Your task to perform on an android device: Show the shopping cart on target.com. Image 0: 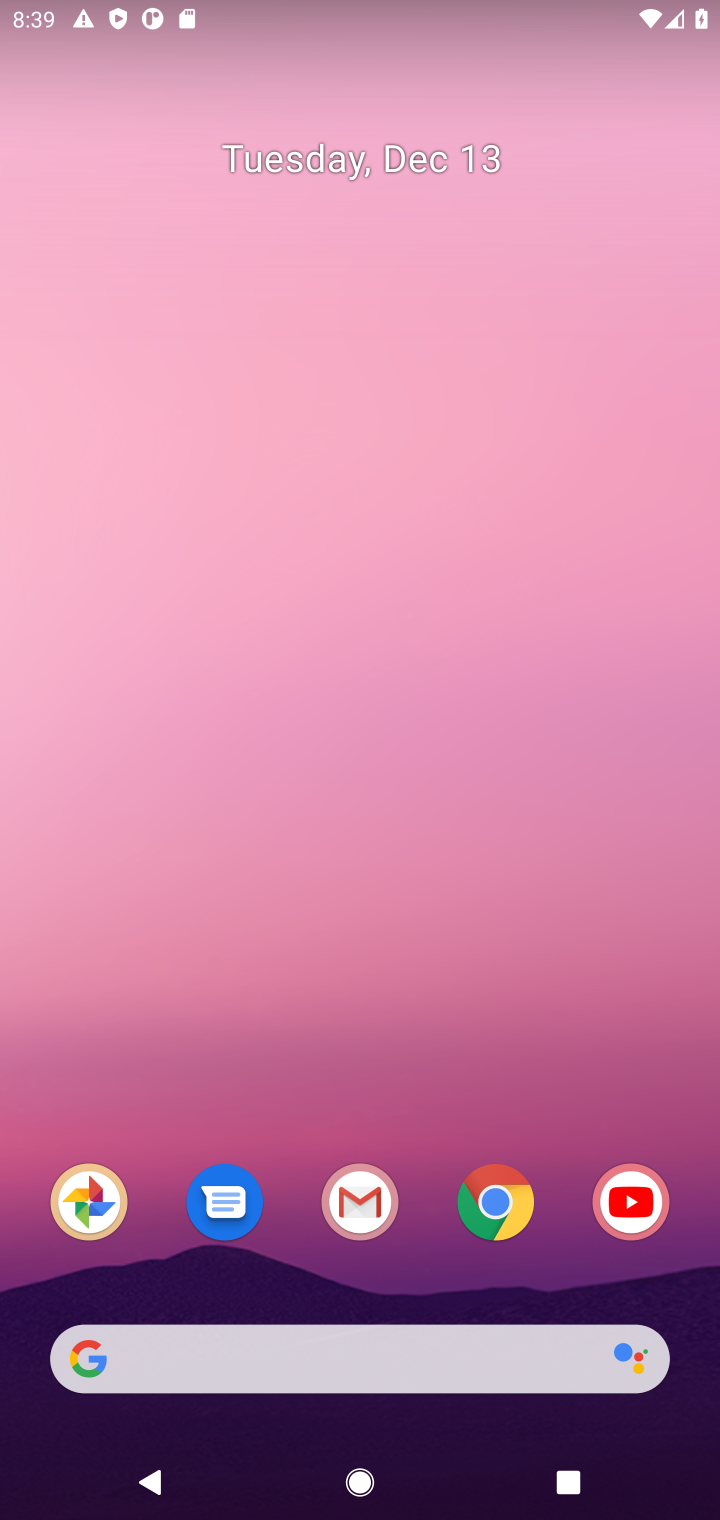
Step 0: click (500, 1198)
Your task to perform on an android device: Show the shopping cart on target.com. Image 1: 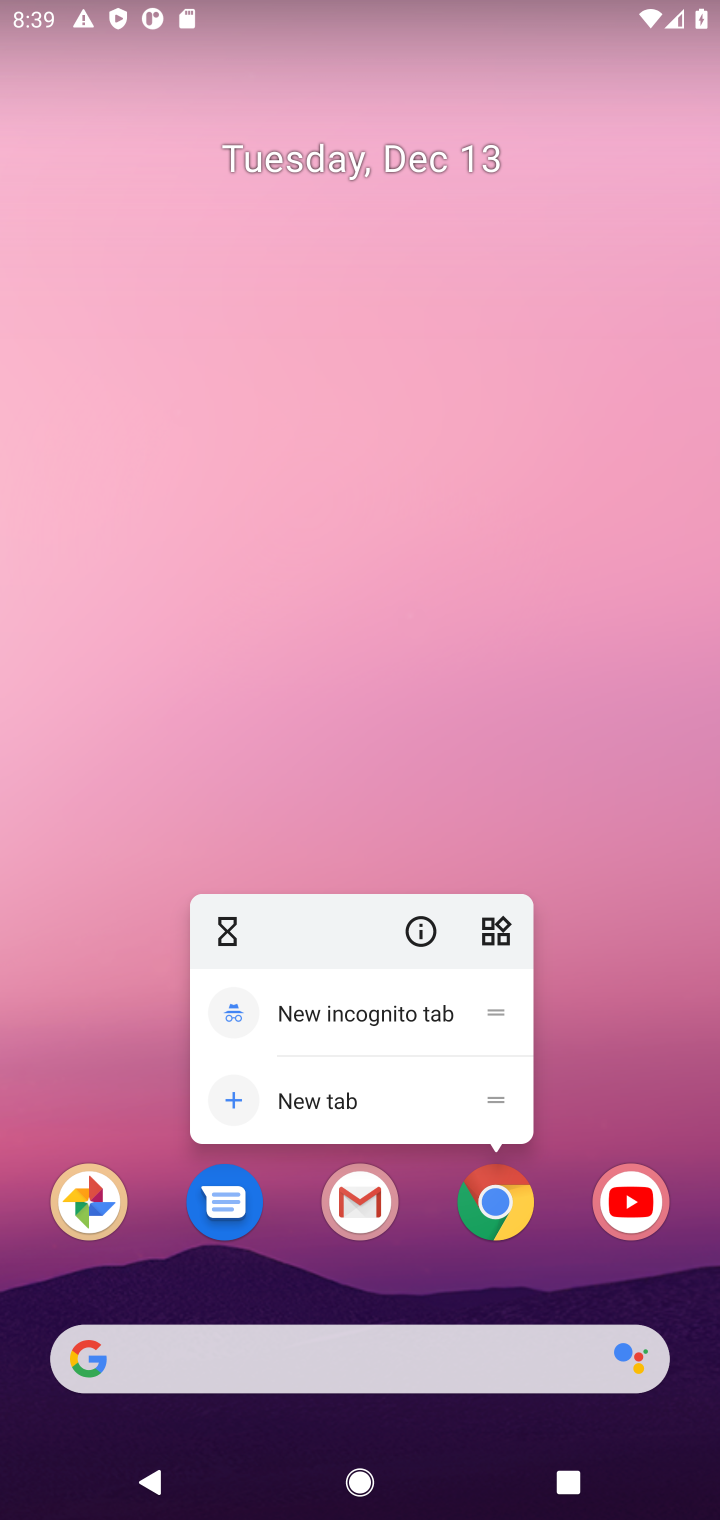
Step 1: click (500, 1198)
Your task to perform on an android device: Show the shopping cart on target.com. Image 2: 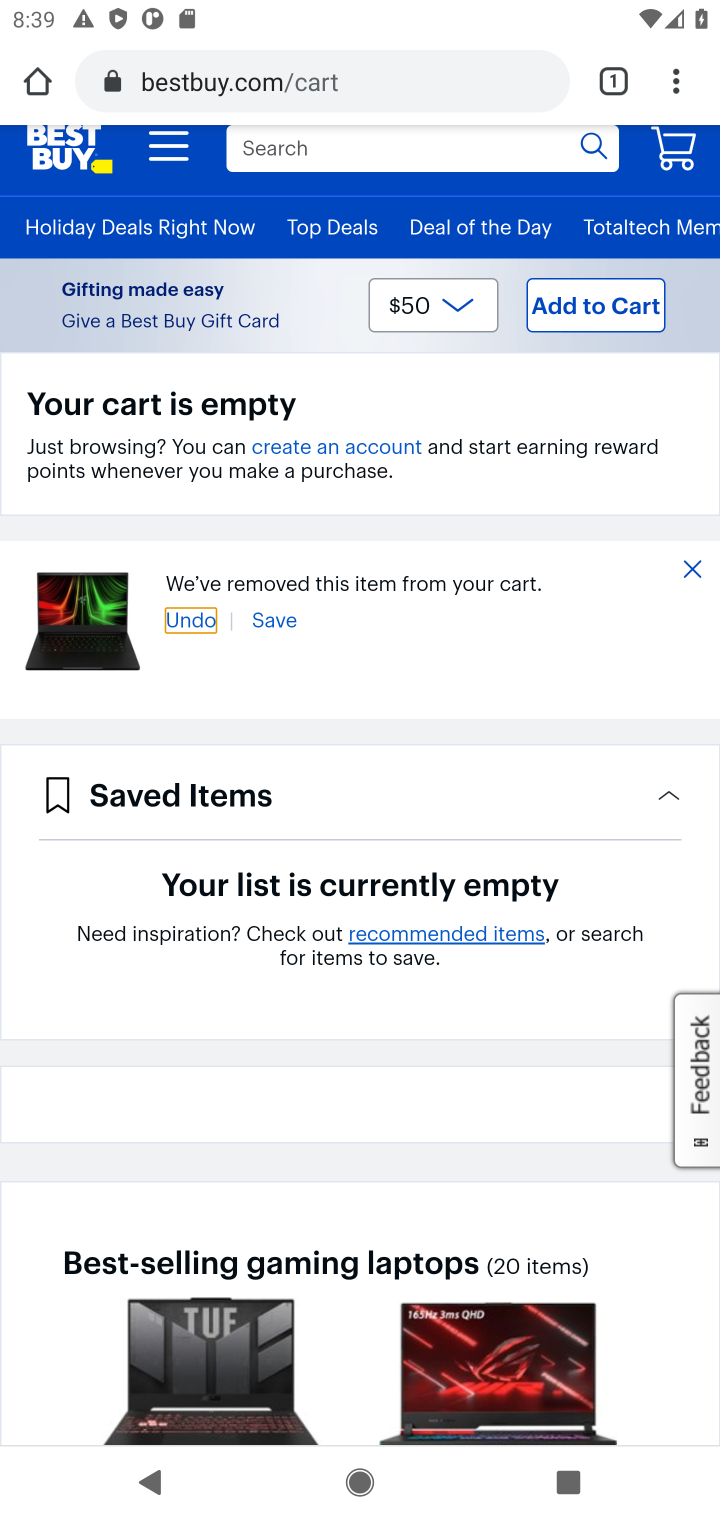
Step 2: click (258, 88)
Your task to perform on an android device: Show the shopping cart on target.com. Image 3: 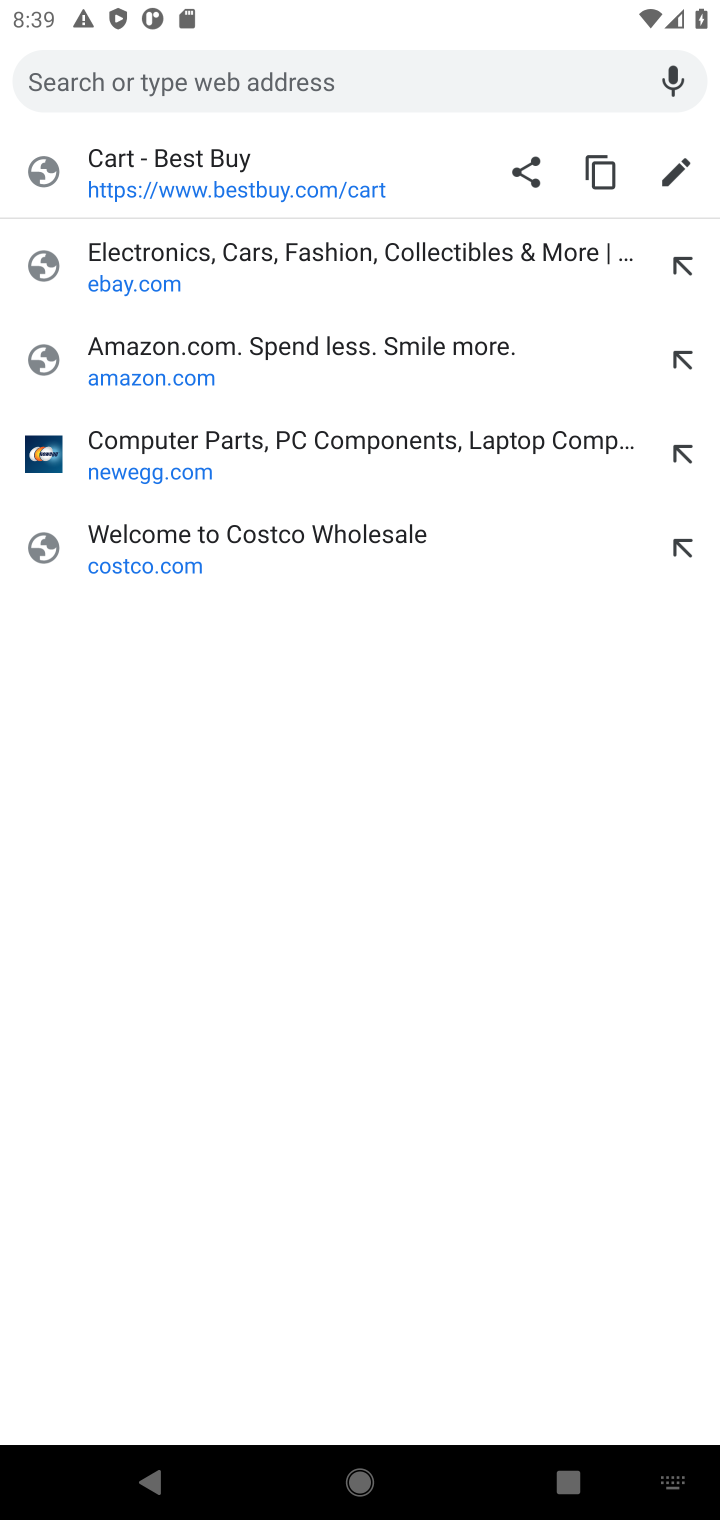
Step 3: type "target.com"
Your task to perform on an android device: Show the shopping cart on target.com. Image 4: 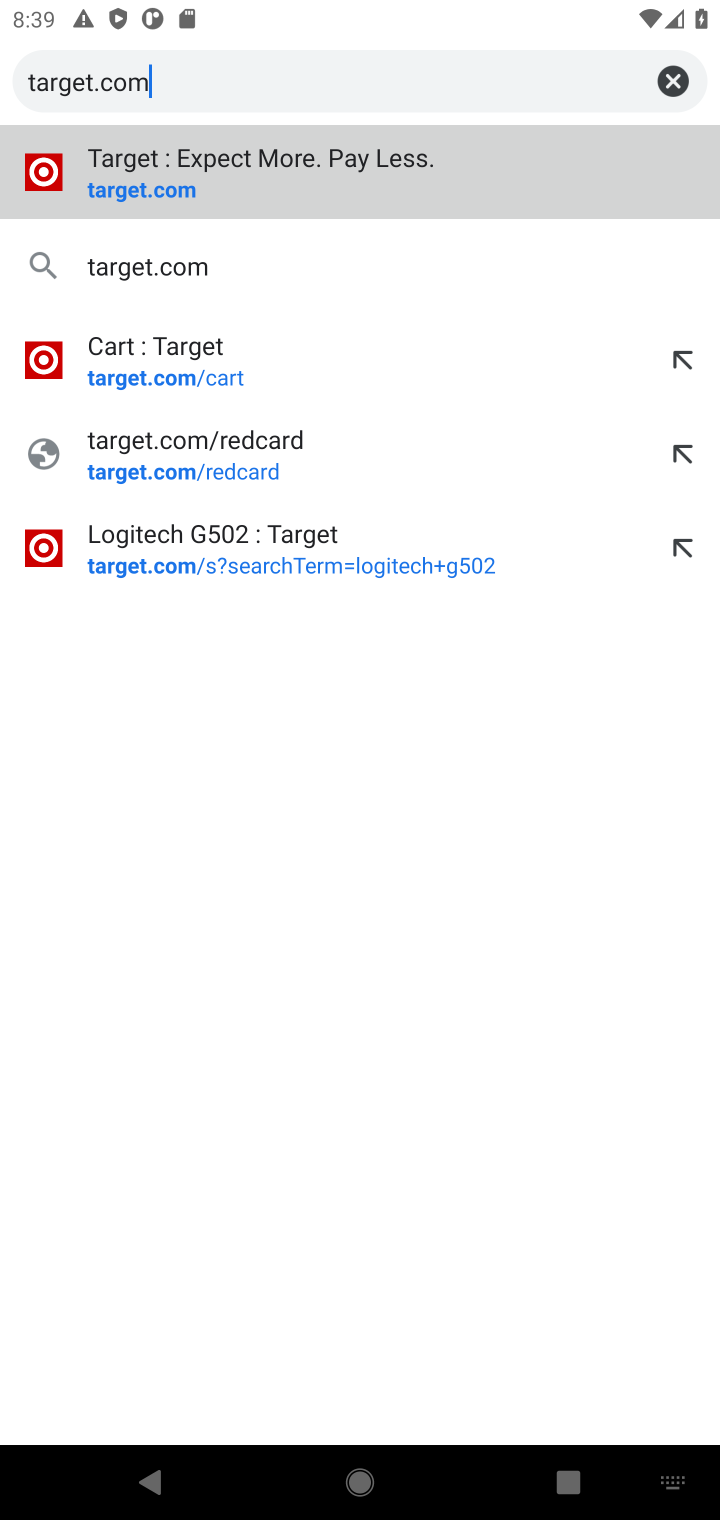
Step 4: click (127, 171)
Your task to perform on an android device: Show the shopping cart on target.com. Image 5: 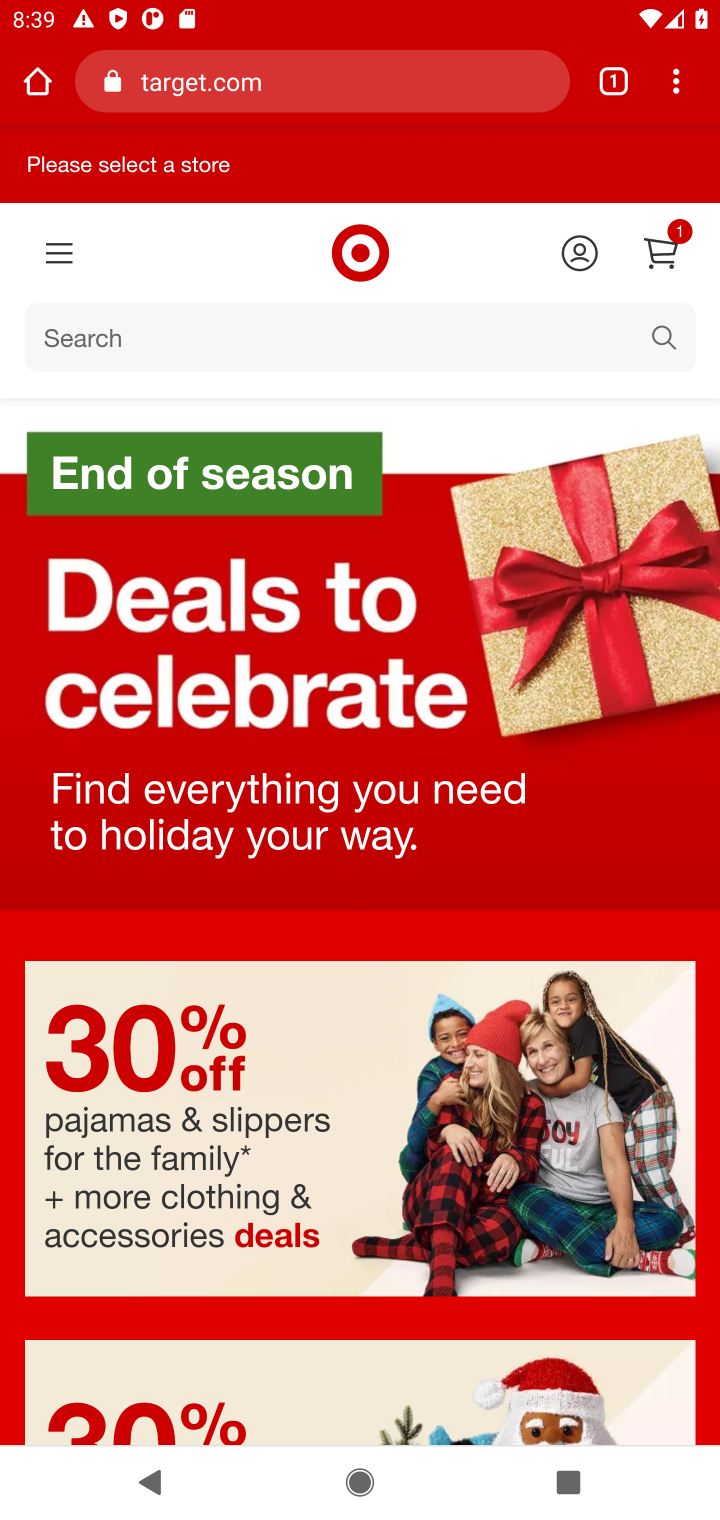
Step 5: click (670, 252)
Your task to perform on an android device: Show the shopping cart on target.com. Image 6: 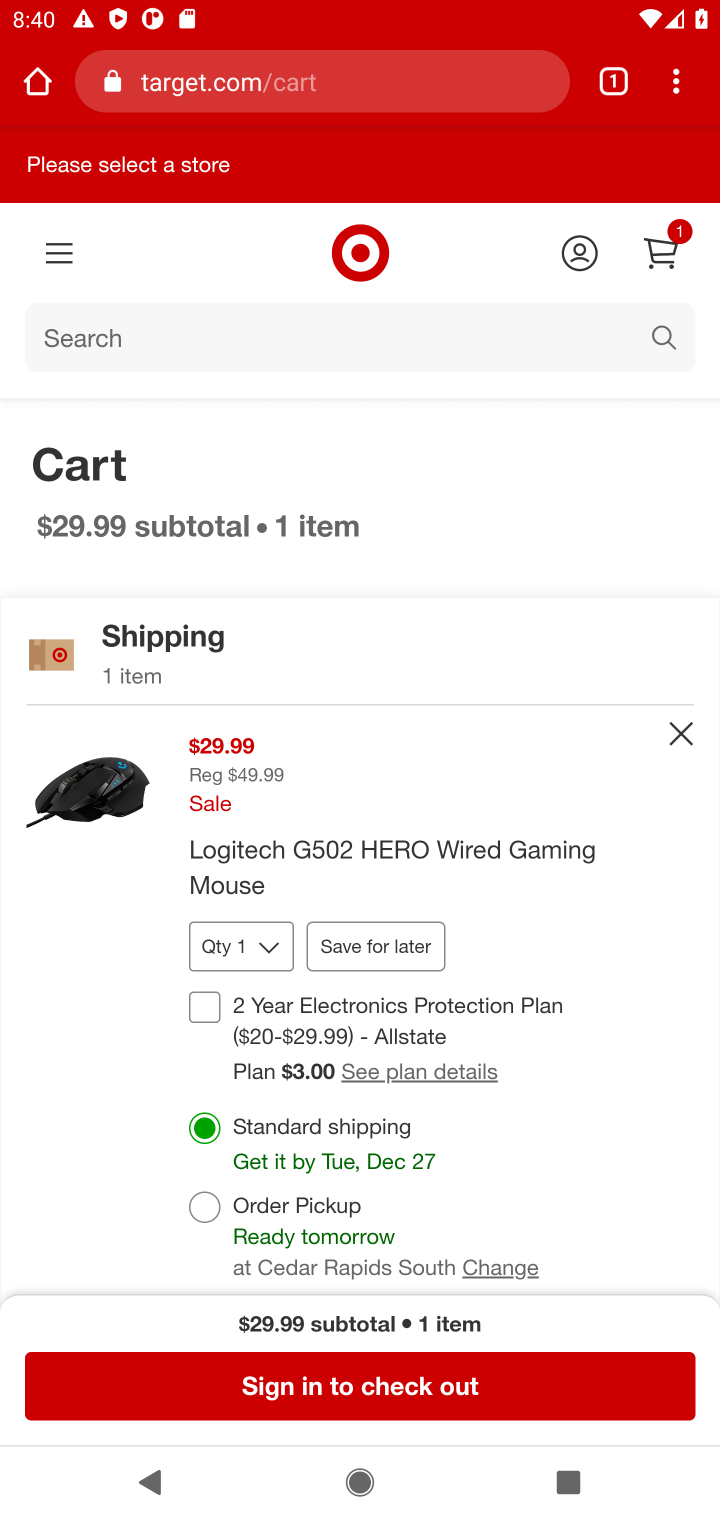
Step 6: task complete